Your task to perform on an android device: turn off priority inbox in the gmail app Image 0: 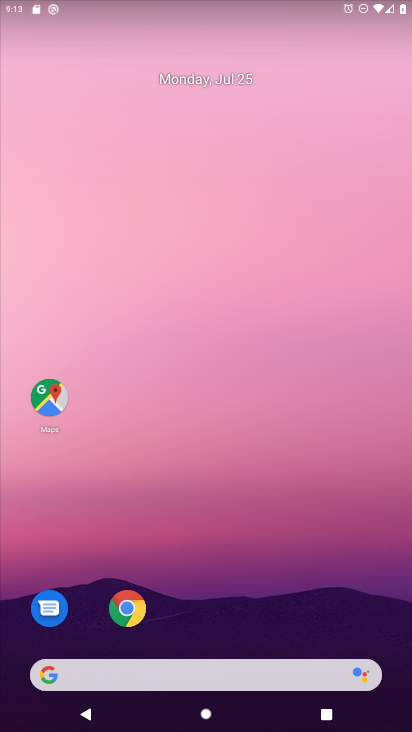
Step 0: drag from (242, 707) to (276, 139)
Your task to perform on an android device: turn off priority inbox in the gmail app Image 1: 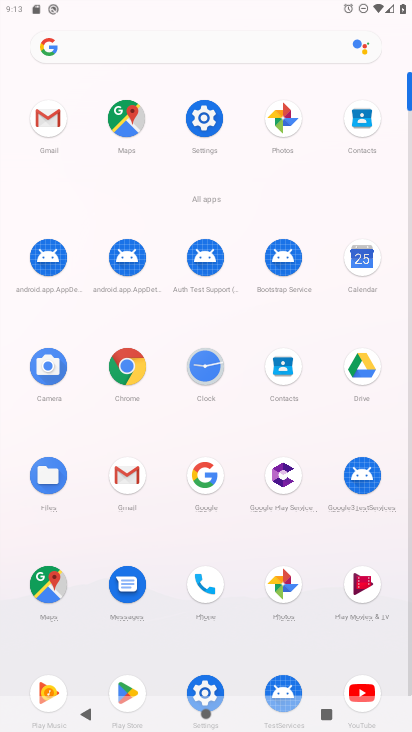
Step 1: click (31, 113)
Your task to perform on an android device: turn off priority inbox in the gmail app Image 2: 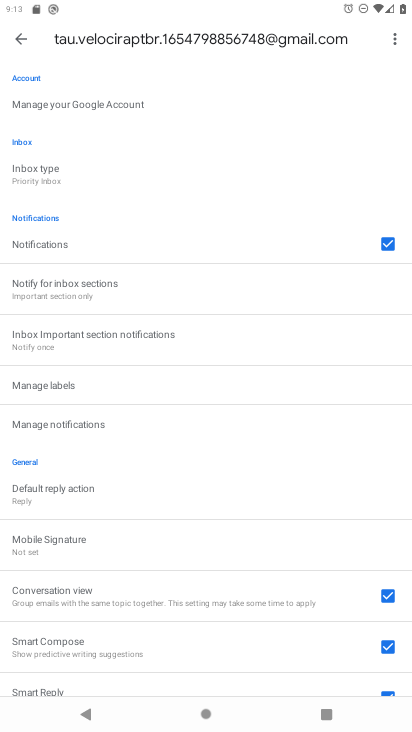
Step 2: click (27, 178)
Your task to perform on an android device: turn off priority inbox in the gmail app Image 3: 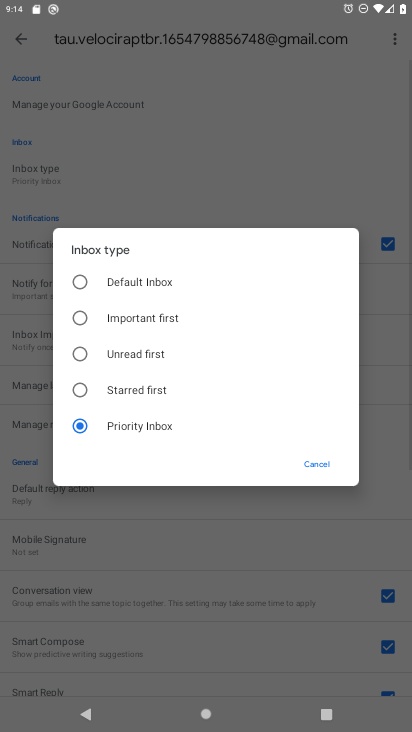
Step 3: click (139, 279)
Your task to perform on an android device: turn off priority inbox in the gmail app Image 4: 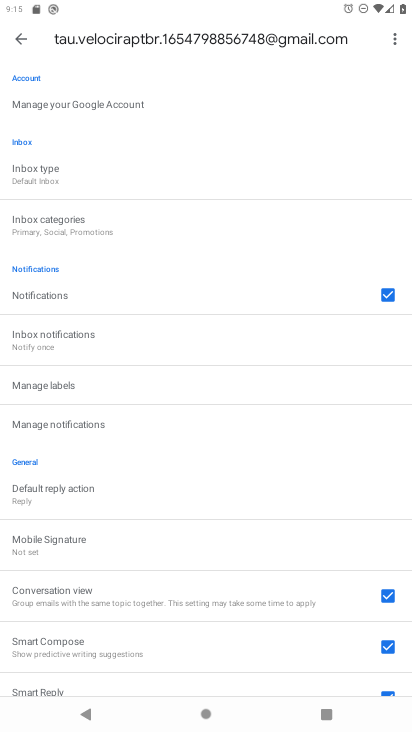
Step 4: task complete